Your task to perform on an android device: turn on location history Image 0: 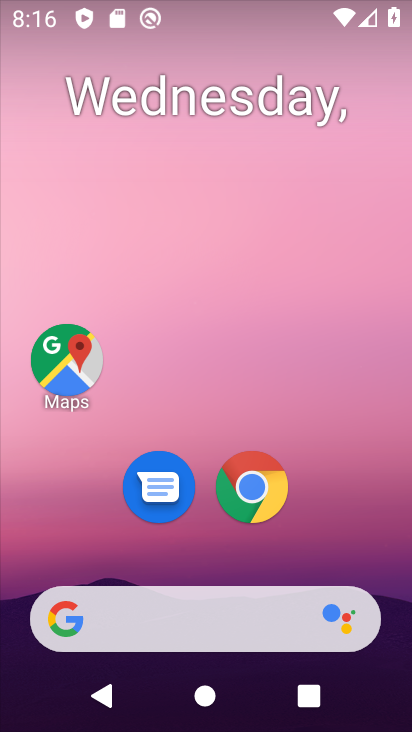
Step 0: drag from (256, 351) to (228, 161)
Your task to perform on an android device: turn on location history Image 1: 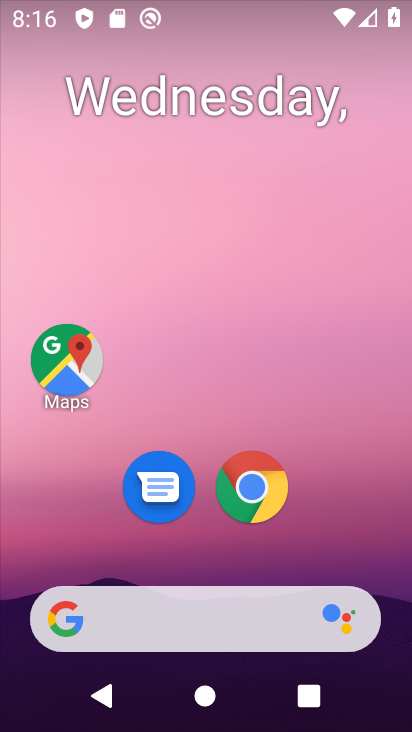
Step 1: drag from (278, 702) to (204, 274)
Your task to perform on an android device: turn on location history Image 2: 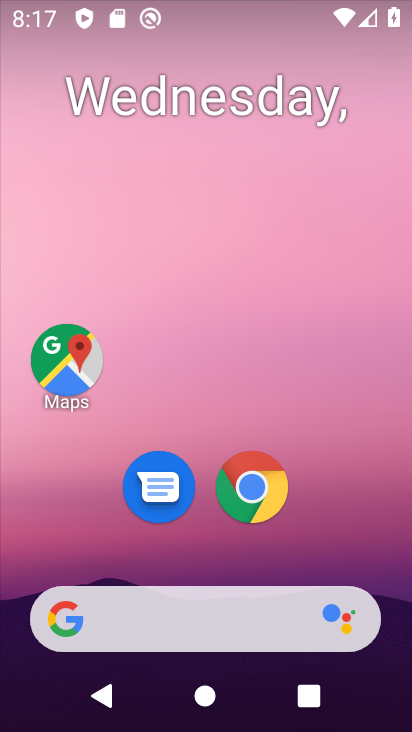
Step 2: drag from (254, 661) to (249, 135)
Your task to perform on an android device: turn on location history Image 3: 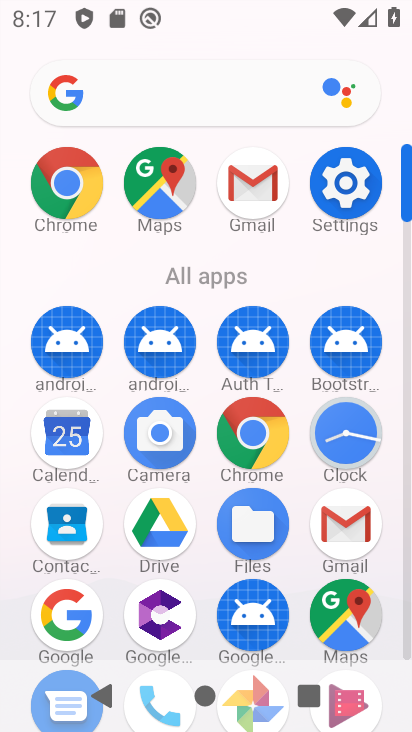
Step 3: drag from (296, 581) to (281, 151)
Your task to perform on an android device: turn on location history Image 4: 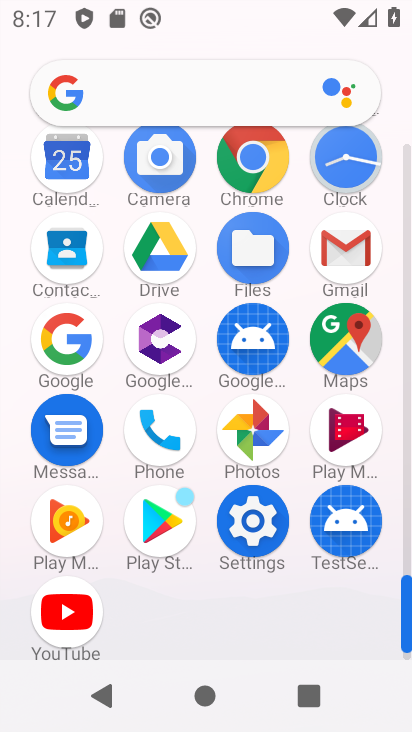
Step 4: click (350, 619)
Your task to perform on an android device: turn on location history Image 5: 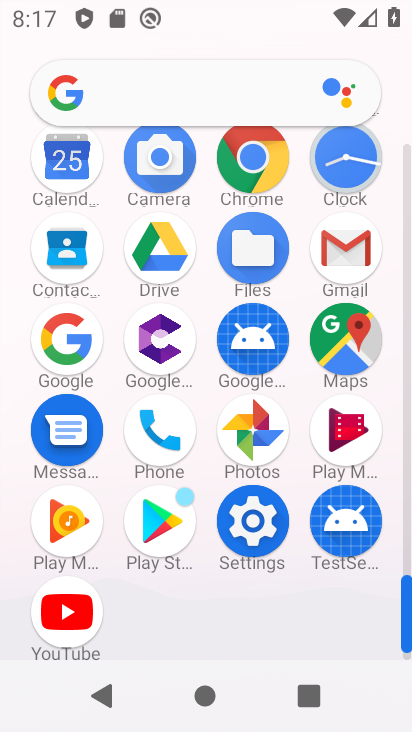
Step 5: click (346, 347)
Your task to perform on an android device: turn on location history Image 6: 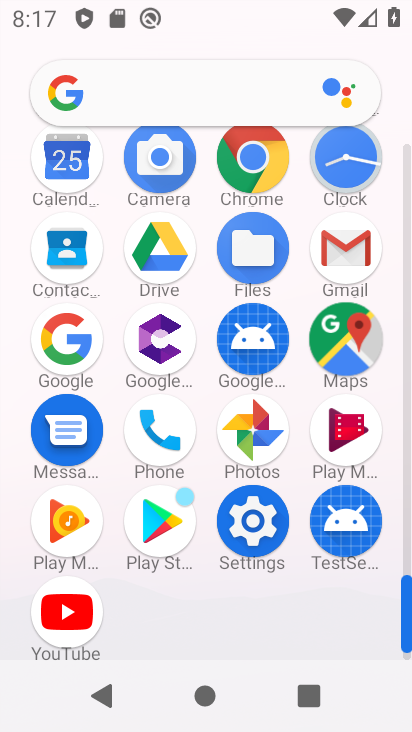
Step 6: click (359, 338)
Your task to perform on an android device: turn on location history Image 7: 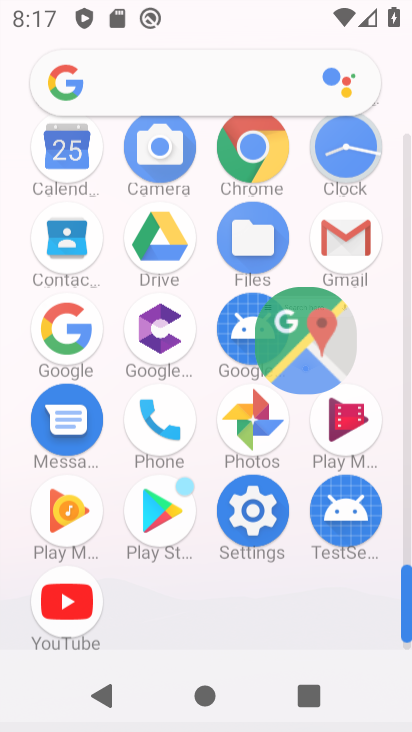
Step 7: click (359, 338)
Your task to perform on an android device: turn on location history Image 8: 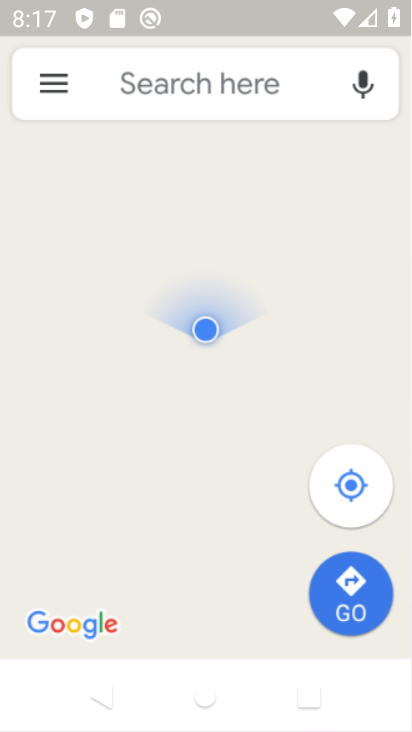
Step 8: click (360, 338)
Your task to perform on an android device: turn on location history Image 9: 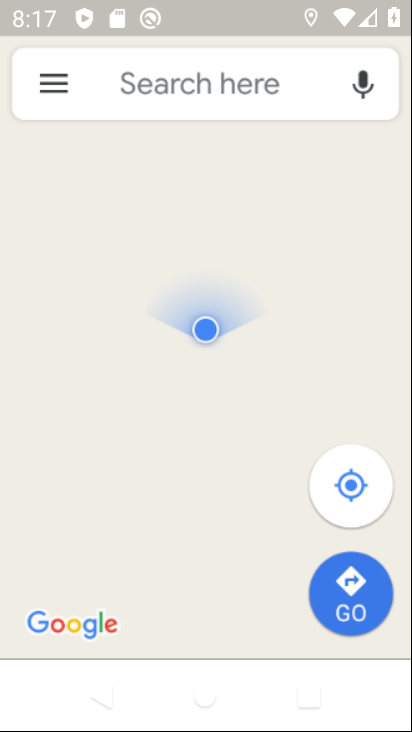
Step 9: click (45, 85)
Your task to perform on an android device: turn on location history Image 10: 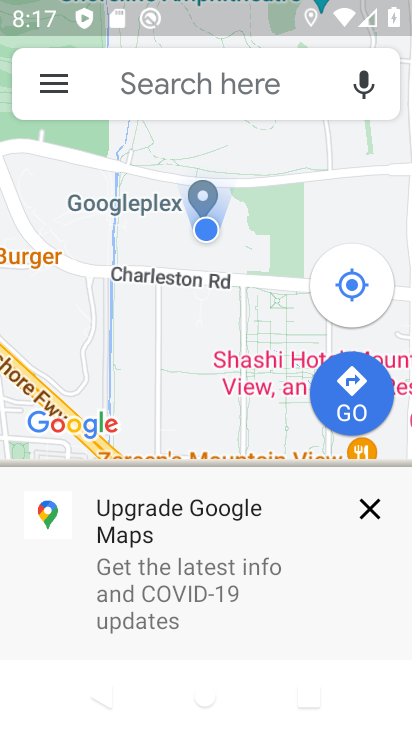
Step 10: click (58, 96)
Your task to perform on an android device: turn on location history Image 11: 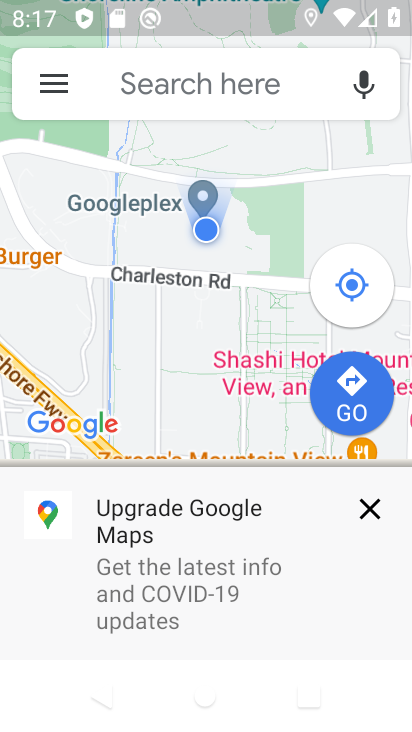
Step 11: click (58, 96)
Your task to perform on an android device: turn on location history Image 12: 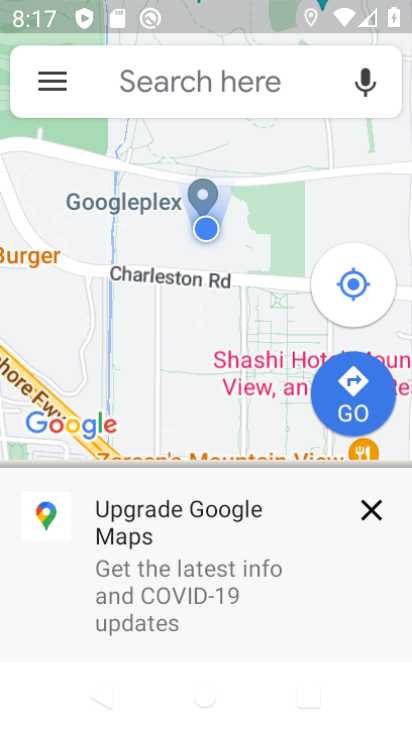
Step 12: drag from (58, 93) to (71, 311)
Your task to perform on an android device: turn on location history Image 13: 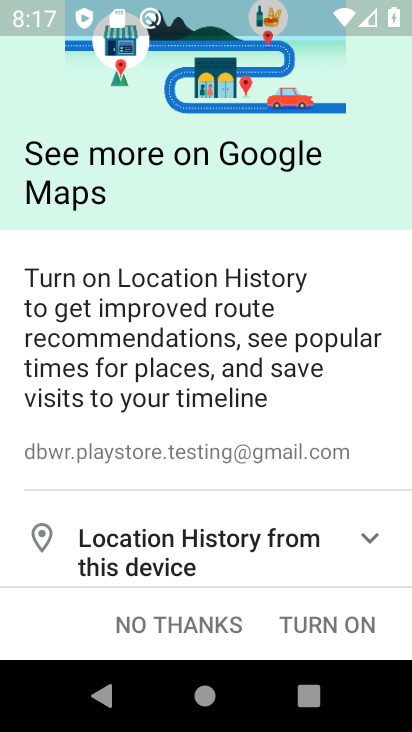
Step 13: drag from (277, 498) to (280, 137)
Your task to perform on an android device: turn on location history Image 14: 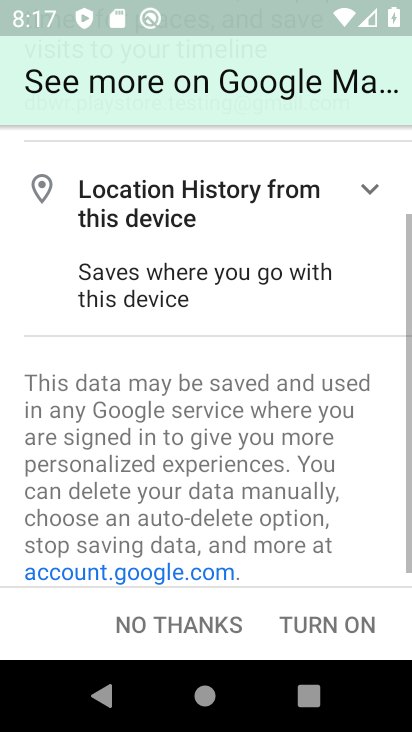
Step 14: drag from (270, 445) to (270, 150)
Your task to perform on an android device: turn on location history Image 15: 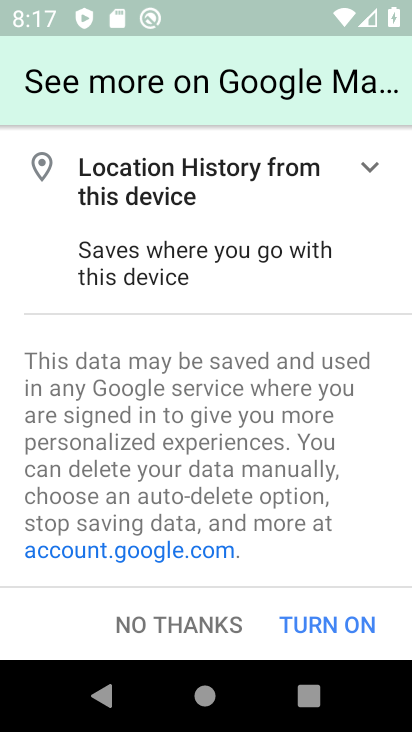
Step 15: click (314, 634)
Your task to perform on an android device: turn on location history Image 16: 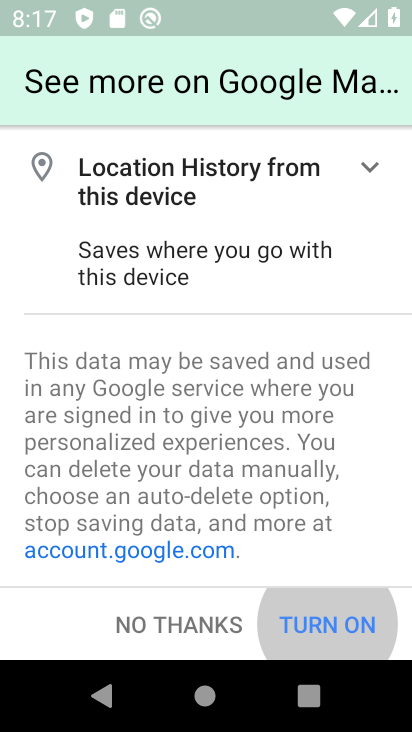
Step 16: click (314, 617)
Your task to perform on an android device: turn on location history Image 17: 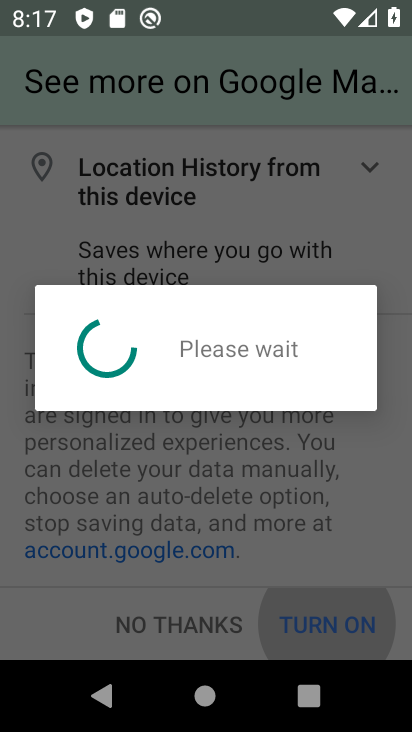
Step 17: click (334, 599)
Your task to perform on an android device: turn on location history Image 18: 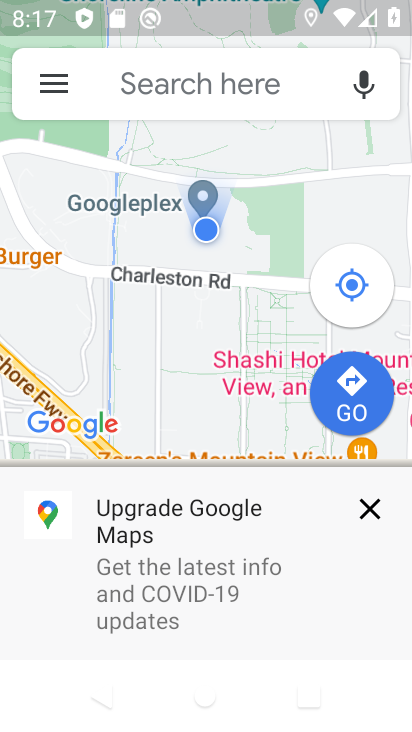
Step 18: task complete